Your task to perform on an android device: What's on my calendar today? Image 0: 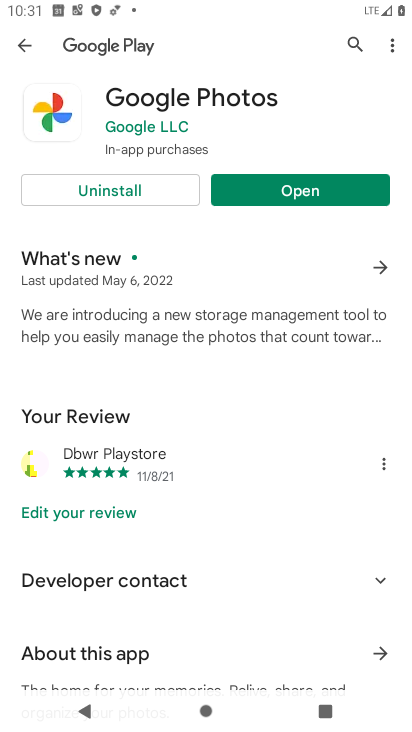
Step 0: press home button
Your task to perform on an android device: What's on my calendar today? Image 1: 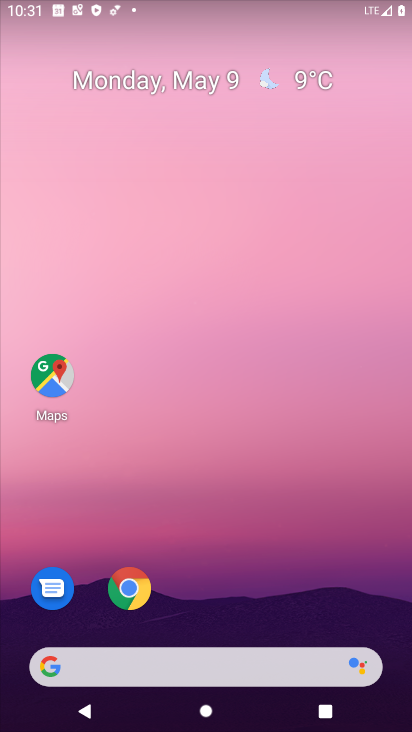
Step 1: drag from (158, 671) to (291, 137)
Your task to perform on an android device: What's on my calendar today? Image 2: 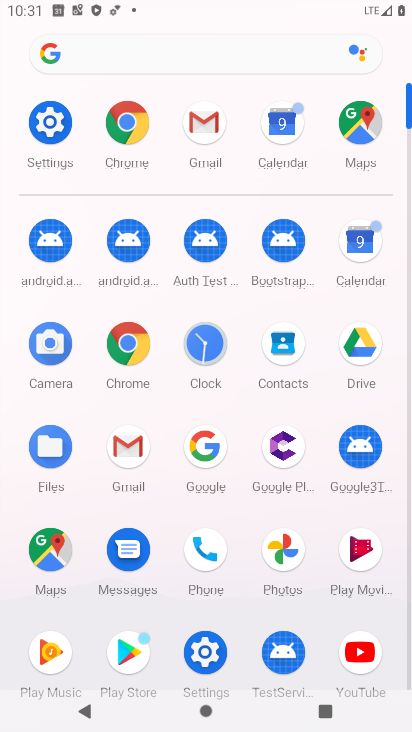
Step 2: click (362, 246)
Your task to perform on an android device: What's on my calendar today? Image 3: 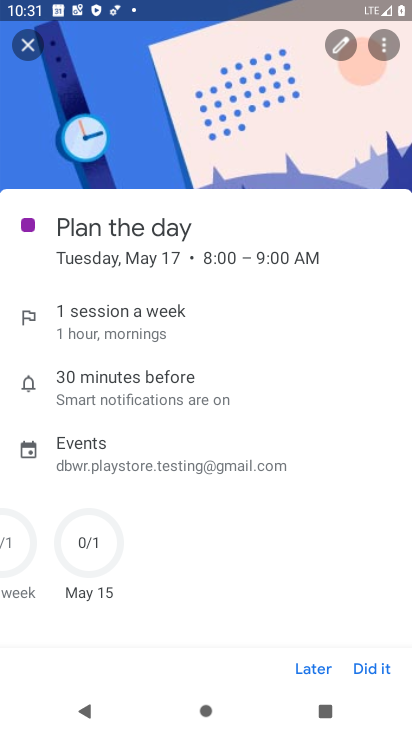
Step 3: click (23, 46)
Your task to perform on an android device: What's on my calendar today? Image 4: 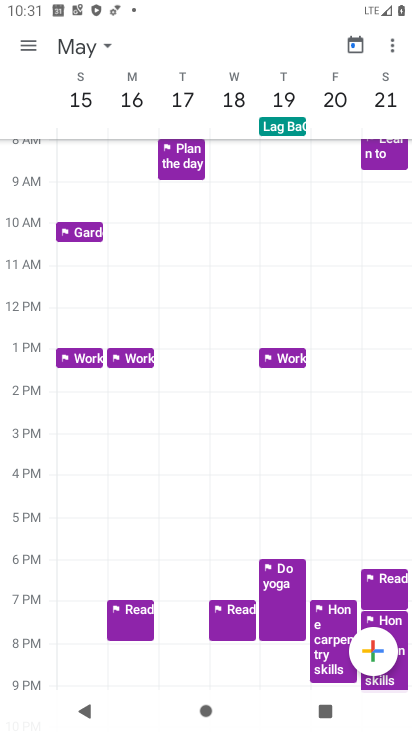
Step 4: click (69, 45)
Your task to perform on an android device: What's on my calendar today? Image 5: 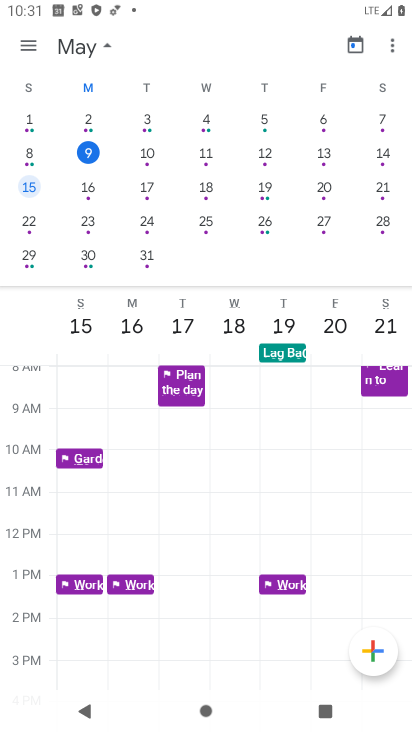
Step 5: click (89, 155)
Your task to perform on an android device: What's on my calendar today? Image 6: 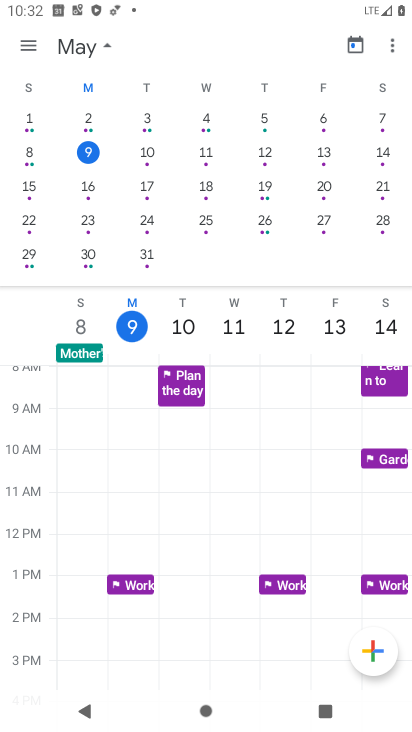
Step 6: click (21, 39)
Your task to perform on an android device: What's on my calendar today? Image 7: 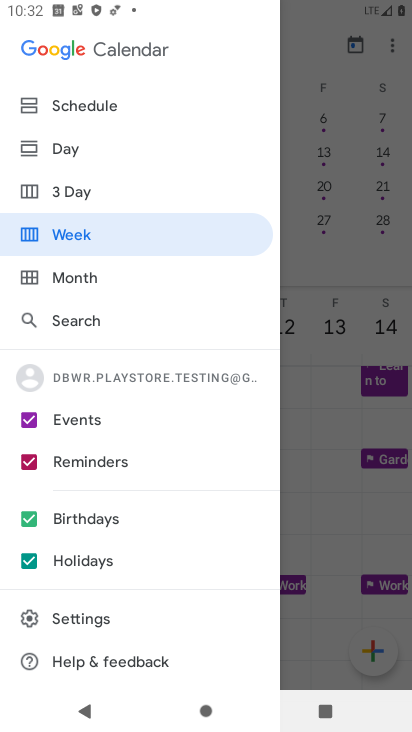
Step 7: click (81, 145)
Your task to perform on an android device: What's on my calendar today? Image 8: 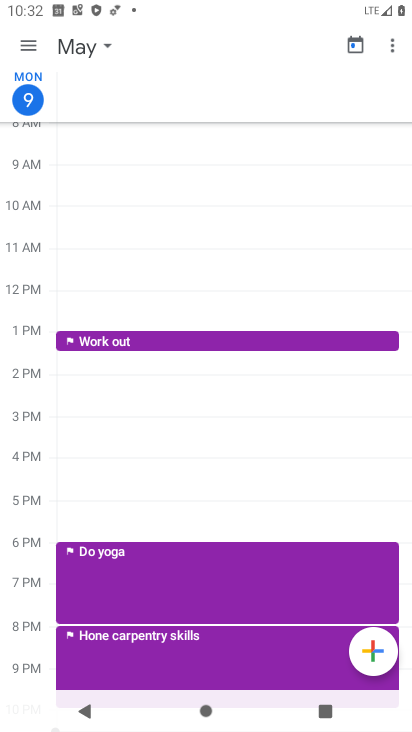
Step 8: click (21, 51)
Your task to perform on an android device: What's on my calendar today? Image 9: 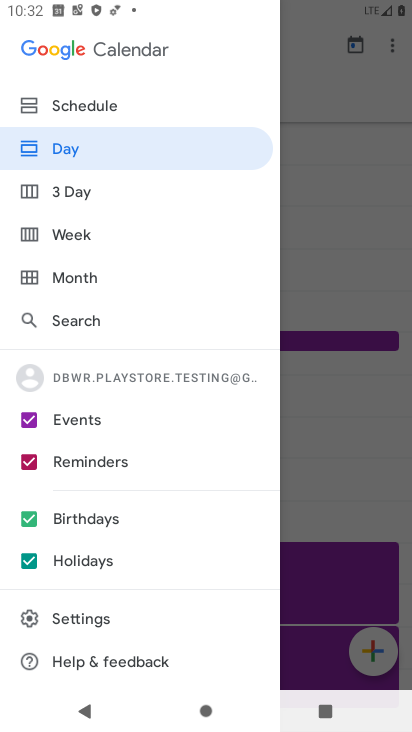
Step 9: click (81, 106)
Your task to perform on an android device: What's on my calendar today? Image 10: 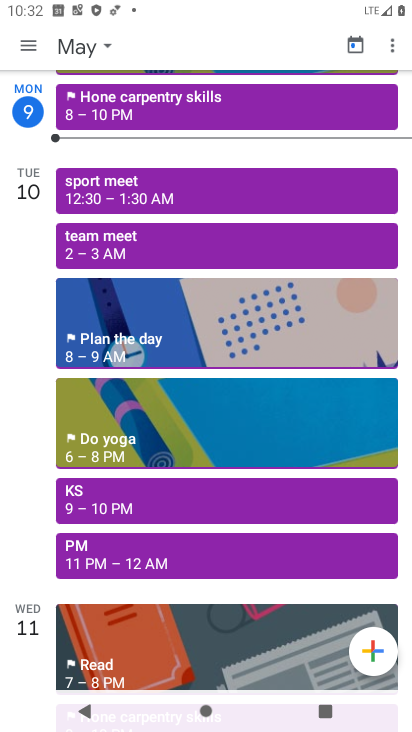
Step 10: click (166, 109)
Your task to perform on an android device: What's on my calendar today? Image 11: 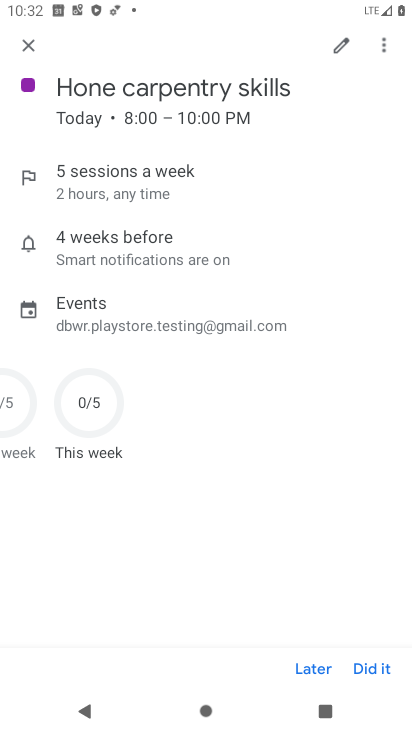
Step 11: task complete